Your task to perform on an android device: change alarm snooze length Image 0: 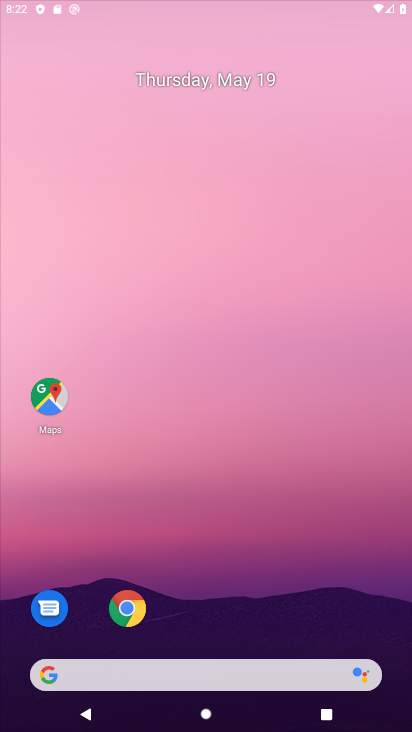
Step 0: drag from (266, 681) to (113, 246)
Your task to perform on an android device: change alarm snooze length Image 1: 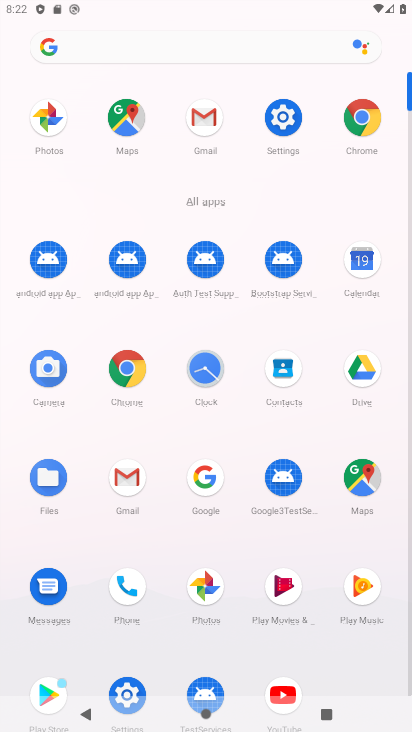
Step 1: click (202, 371)
Your task to perform on an android device: change alarm snooze length Image 2: 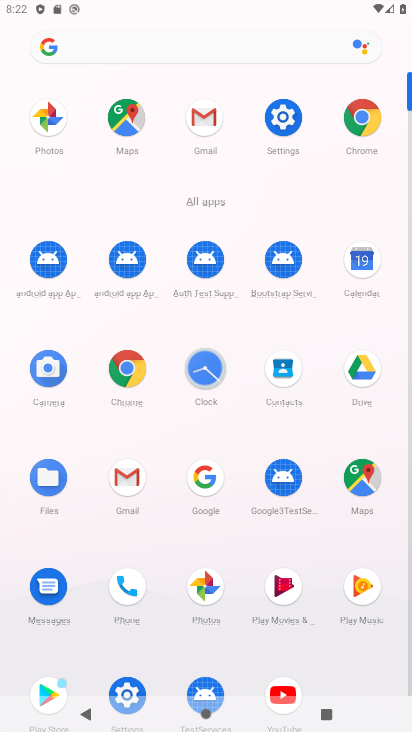
Step 2: click (202, 371)
Your task to perform on an android device: change alarm snooze length Image 3: 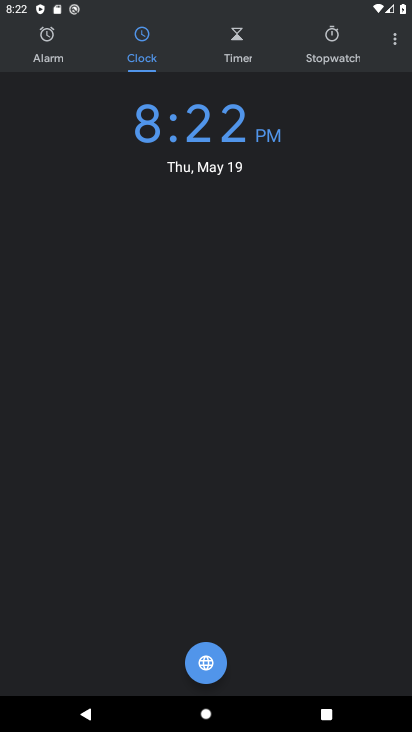
Step 3: click (392, 41)
Your task to perform on an android device: change alarm snooze length Image 4: 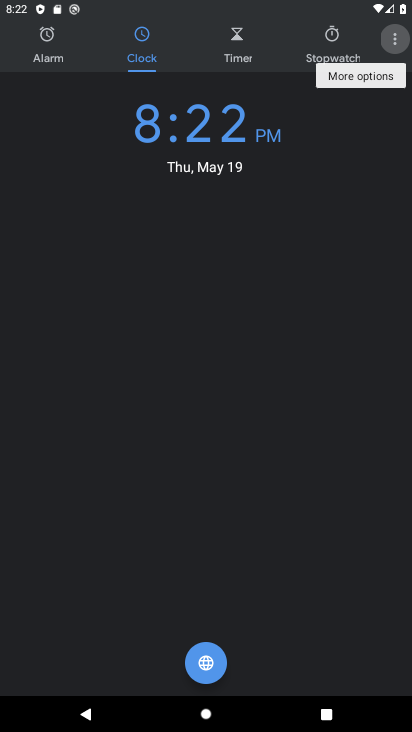
Step 4: click (392, 41)
Your task to perform on an android device: change alarm snooze length Image 5: 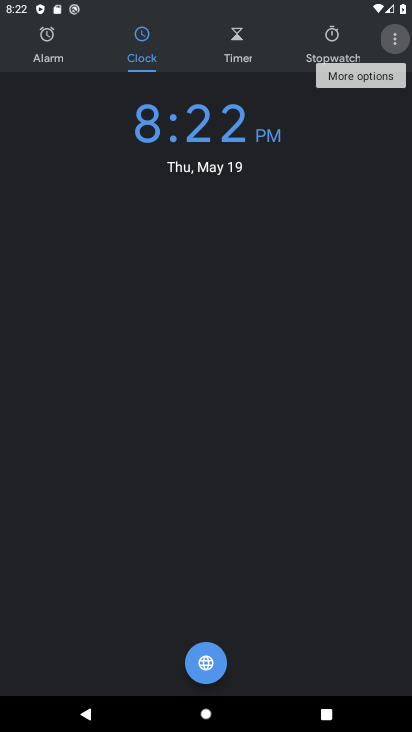
Step 5: click (392, 41)
Your task to perform on an android device: change alarm snooze length Image 6: 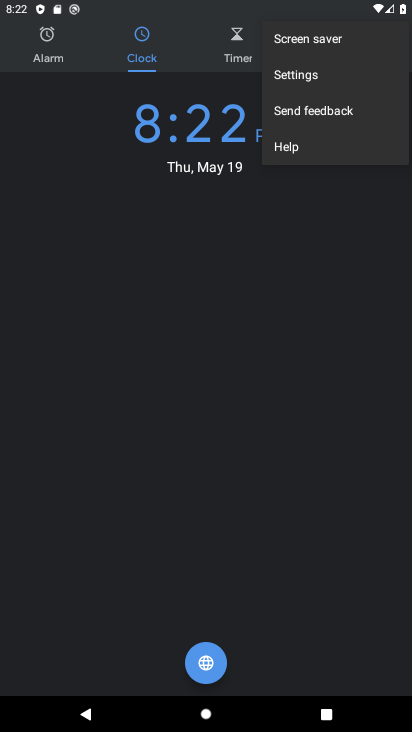
Step 6: click (313, 78)
Your task to perform on an android device: change alarm snooze length Image 7: 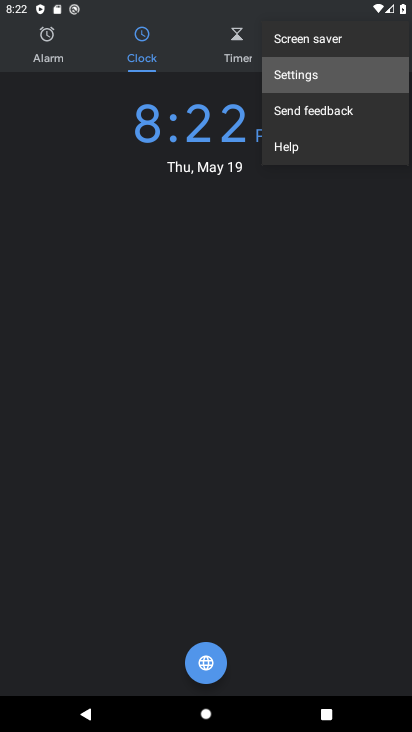
Step 7: click (312, 77)
Your task to perform on an android device: change alarm snooze length Image 8: 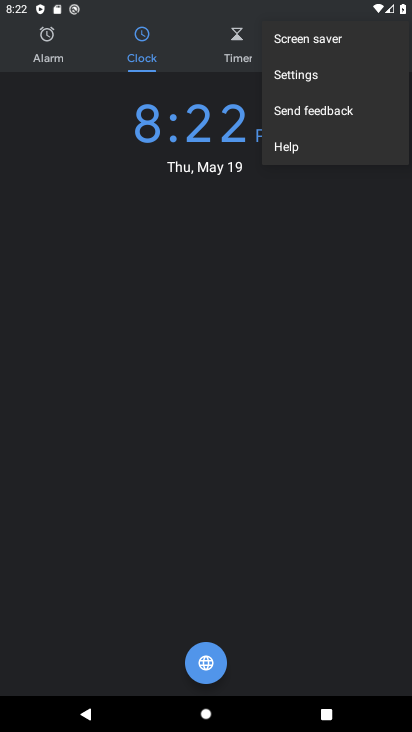
Step 8: click (312, 77)
Your task to perform on an android device: change alarm snooze length Image 9: 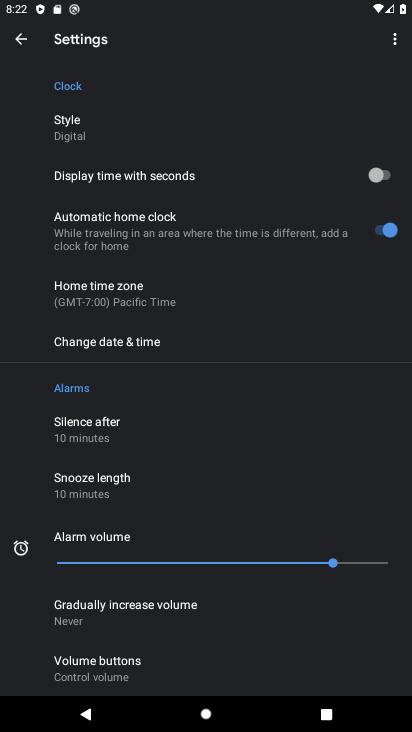
Step 9: click (98, 485)
Your task to perform on an android device: change alarm snooze length Image 10: 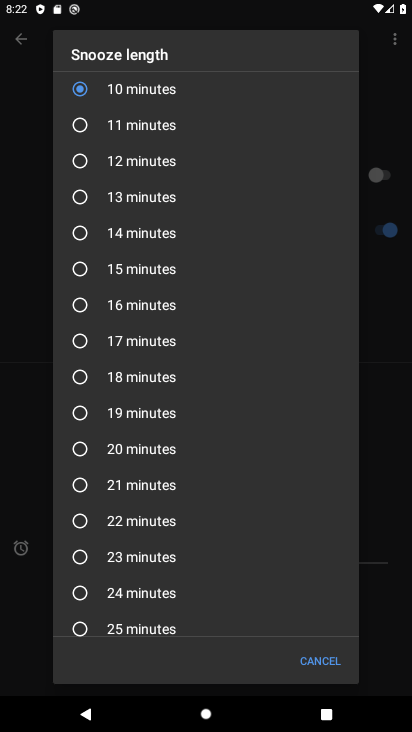
Step 10: click (84, 483)
Your task to perform on an android device: change alarm snooze length Image 11: 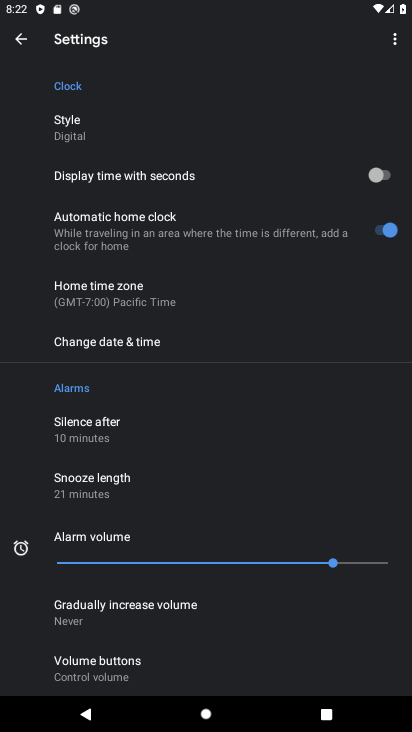
Step 11: task complete